Your task to perform on an android device: turn notification dots off Image 0: 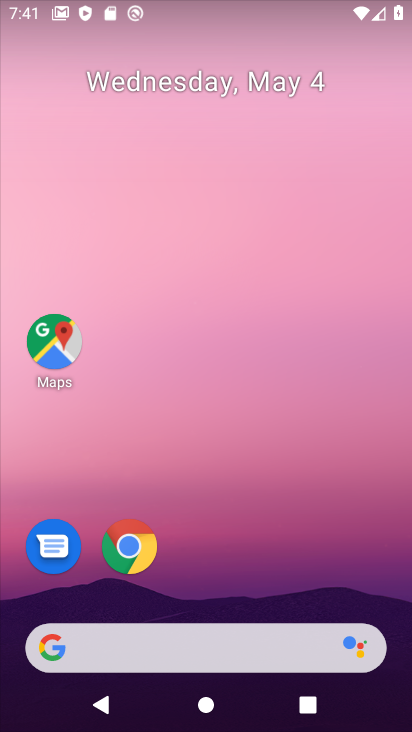
Step 0: drag from (300, 560) to (298, 20)
Your task to perform on an android device: turn notification dots off Image 1: 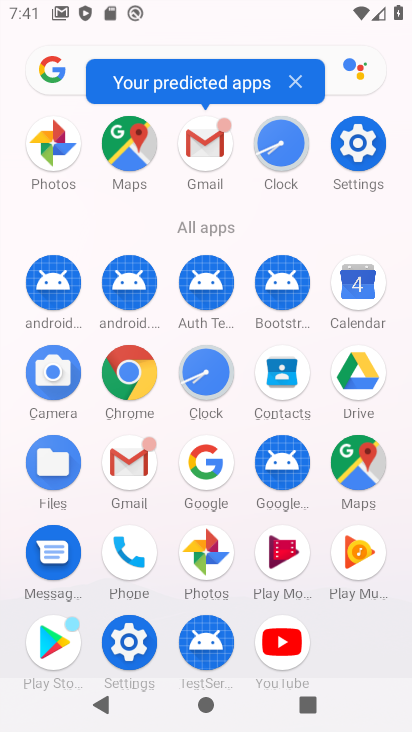
Step 1: click (358, 147)
Your task to perform on an android device: turn notification dots off Image 2: 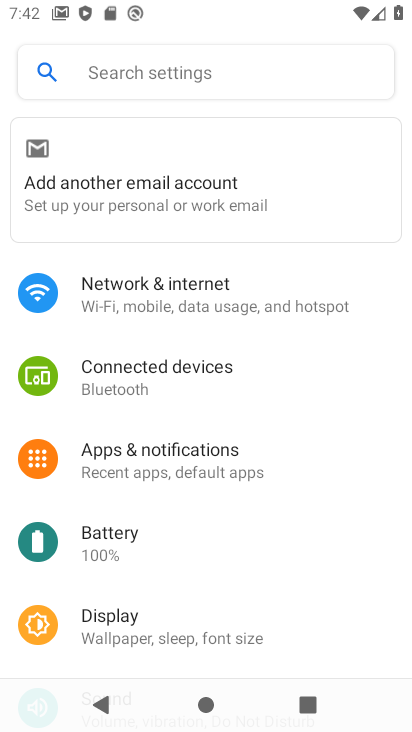
Step 2: click (171, 462)
Your task to perform on an android device: turn notification dots off Image 3: 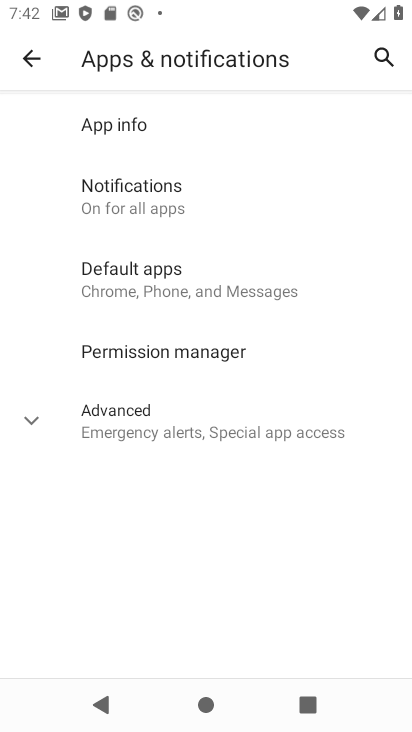
Step 3: click (199, 462)
Your task to perform on an android device: turn notification dots off Image 4: 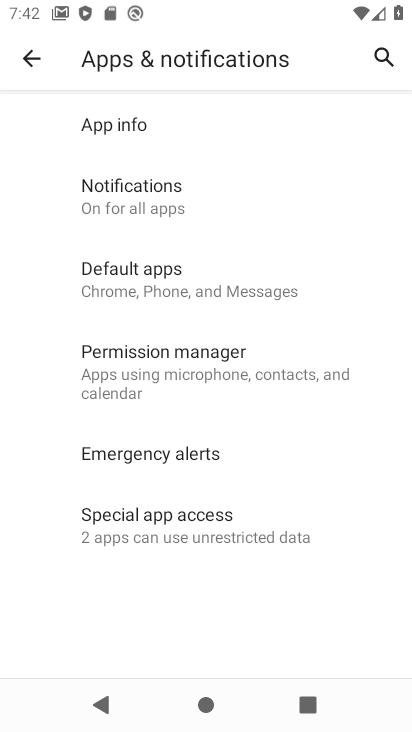
Step 4: click (155, 194)
Your task to perform on an android device: turn notification dots off Image 5: 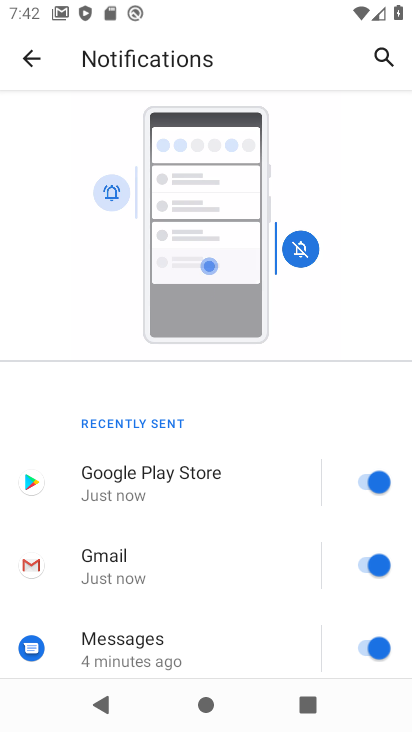
Step 5: drag from (204, 616) to (195, 82)
Your task to perform on an android device: turn notification dots off Image 6: 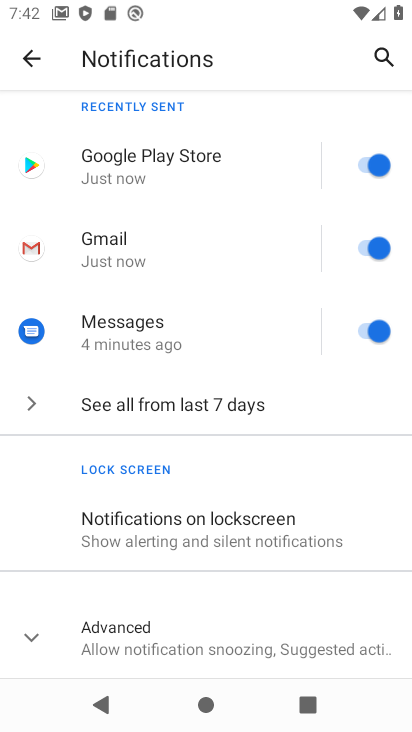
Step 6: click (185, 633)
Your task to perform on an android device: turn notification dots off Image 7: 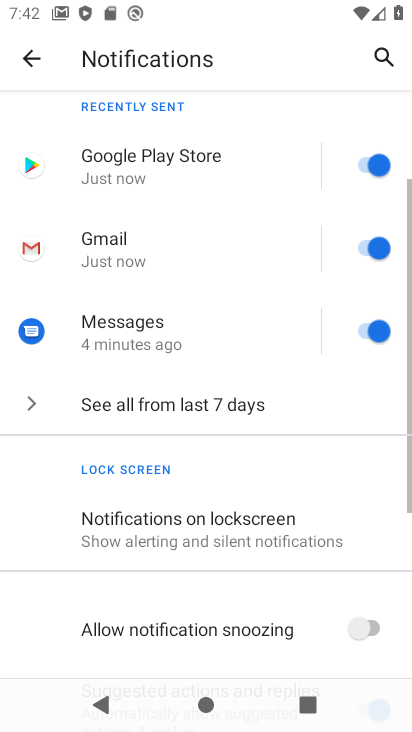
Step 7: drag from (264, 605) to (221, 155)
Your task to perform on an android device: turn notification dots off Image 8: 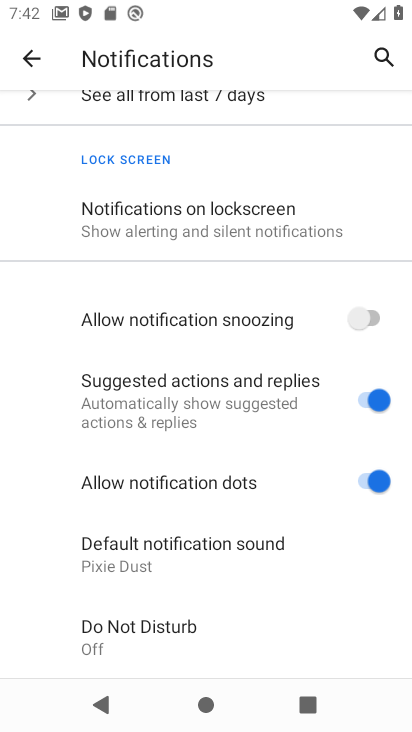
Step 8: click (371, 477)
Your task to perform on an android device: turn notification dots off Image 9: 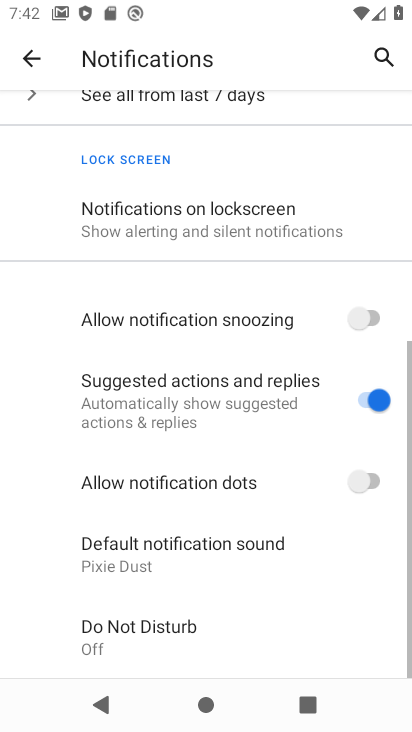
Step 9: task complete